Your task to perform on an android device: Go to eBay Image 0: 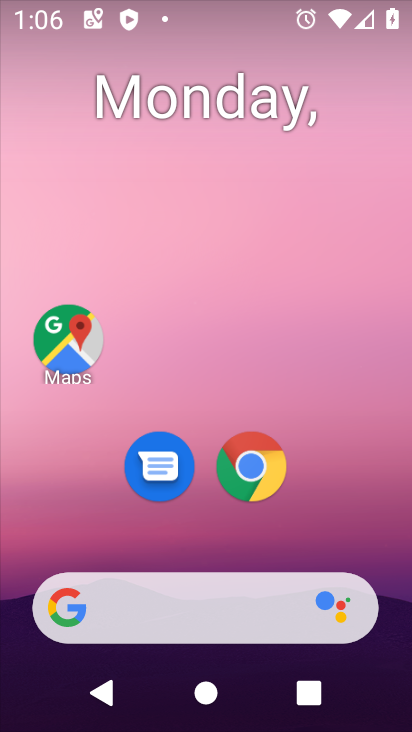
Step 0: drag from (389, 613) to (258, 22)
Your task to perform on an android device: Go to eBay Image 1: 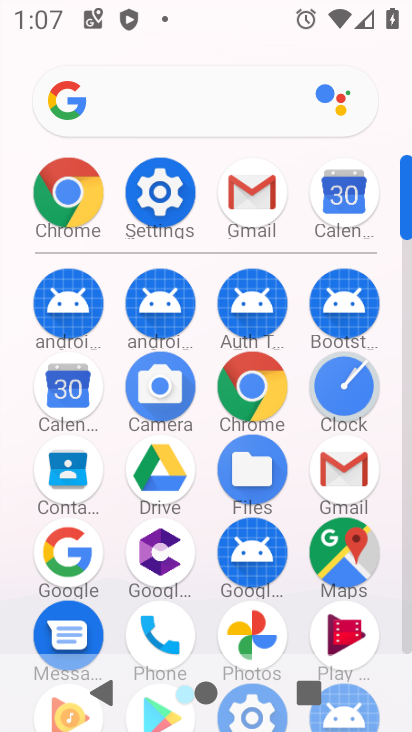
Step 1: click (63, 574)
Your task to perform on an android device: Go to eBay Image 2: 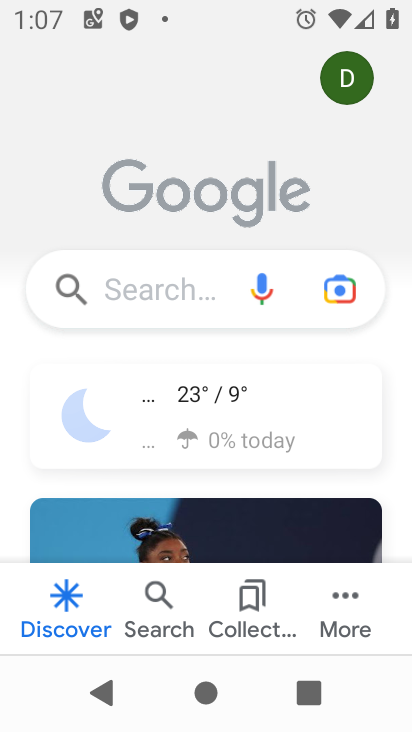
Step 2: click (156, 288)
Your task to perform on an android device: Go to eBay Image 3: 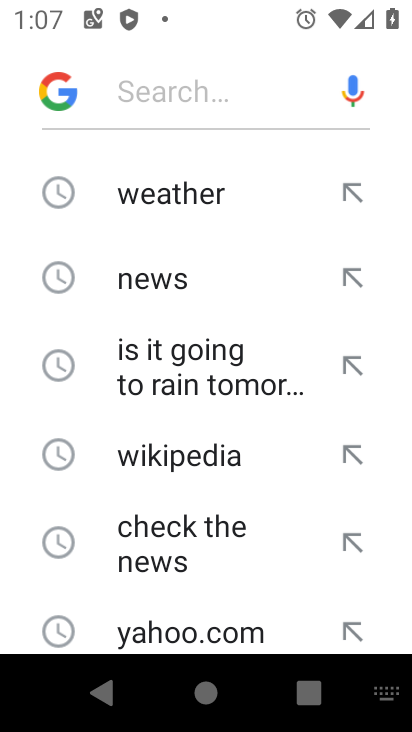
Step 3: drag from (135, 596) to (173, 160)
Your task to perform on an android device: Go to eBay Image 4: 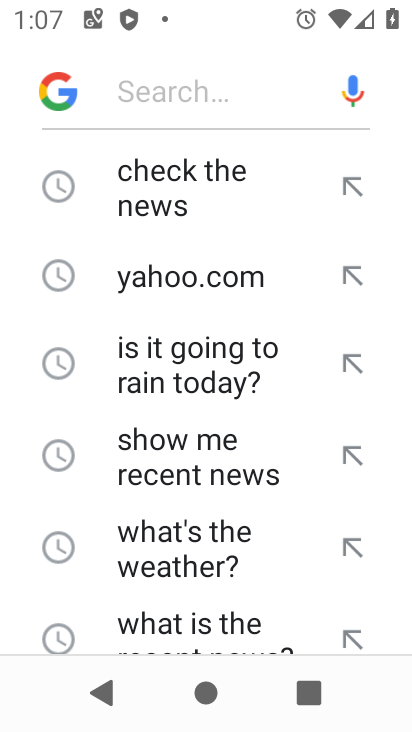
Step 4: drag from (110, 640) to (184, 149)
Your task to perform on an android device: Go to eBay Image 5: 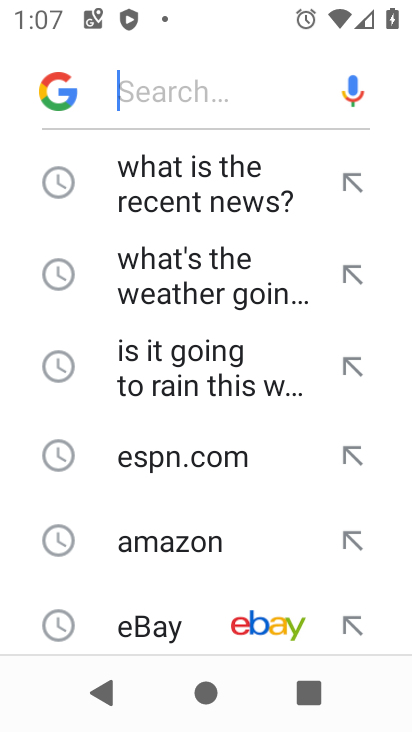
Step 5: click (186, 619)
Your task to perform on an android device: Go to eBay Image 6: 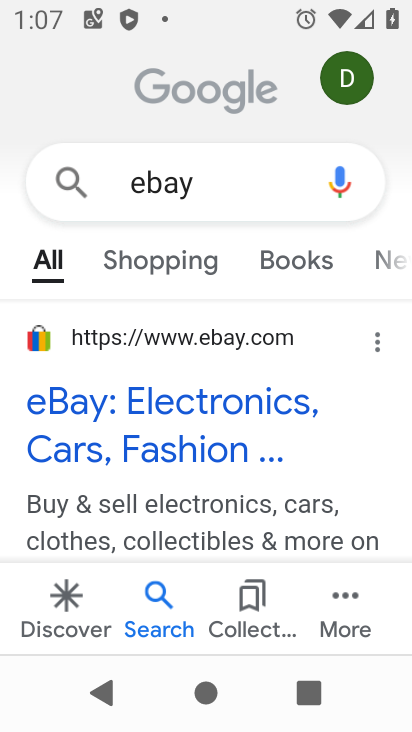
Step 6: task complete